Your task to perform on an android device: set the timer Image 0: 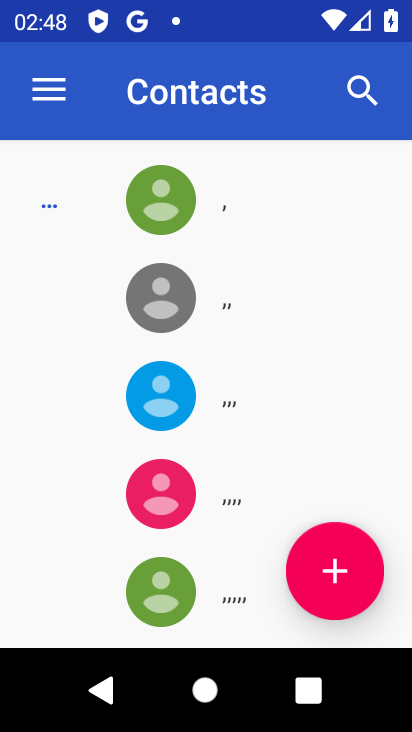
Step 0: press back button
Your task to perform on an android device: set the timer Image 1: 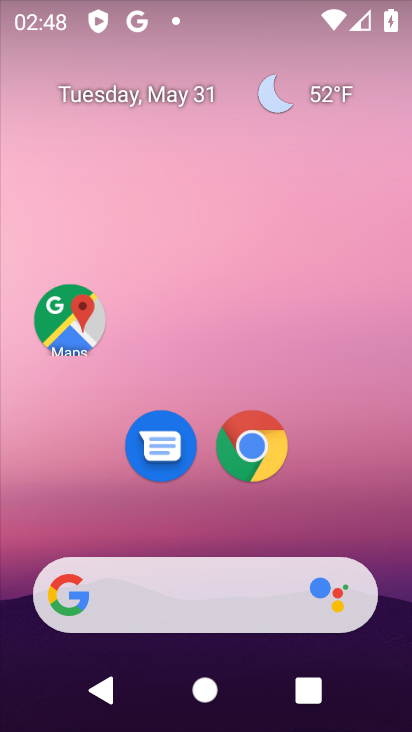
Step 1: drag from (317, 513) to (239, 17)
Your task to perform on an android device: set the timer Image 2: 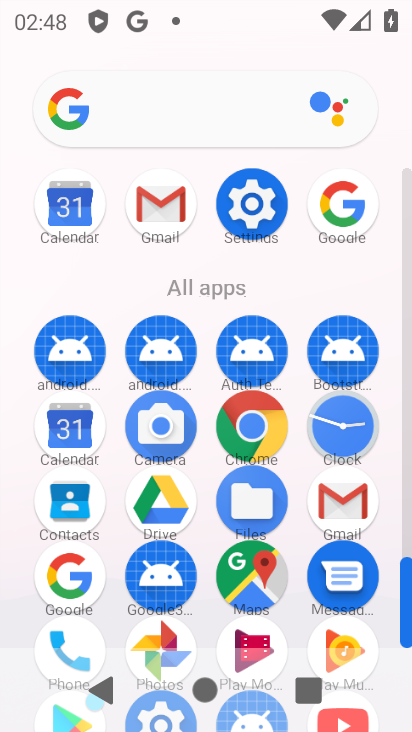
Step 2: click (343, 428)
Your task to perform on an android device: set the timer Image 3: 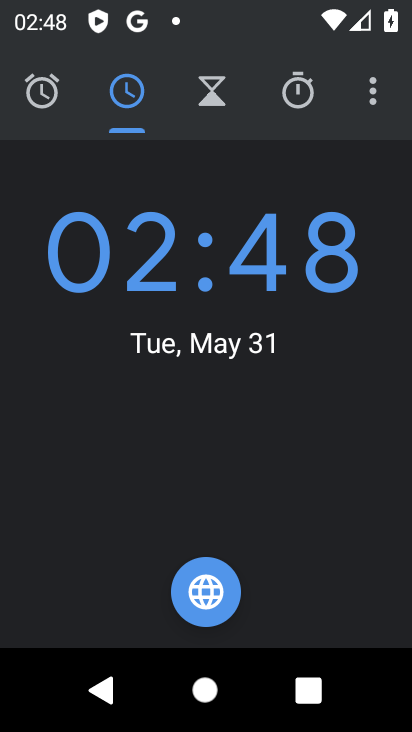
Step 3: click (212, 96)
Your task to perform on an android device: set the timer Image 4: 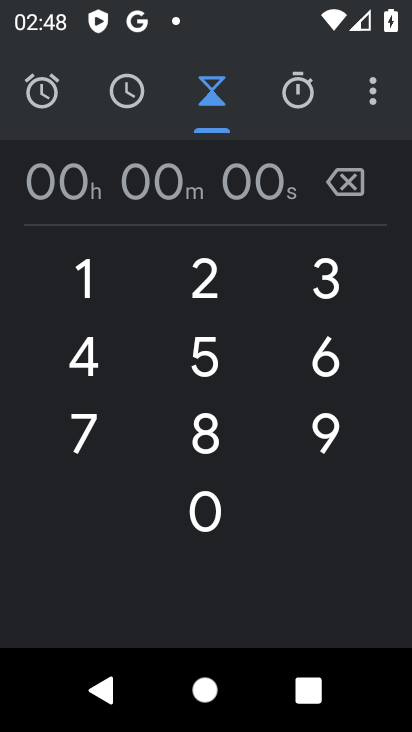
Step 4: type "1357"
Your task to perform on an android device: set the timer Image 5: 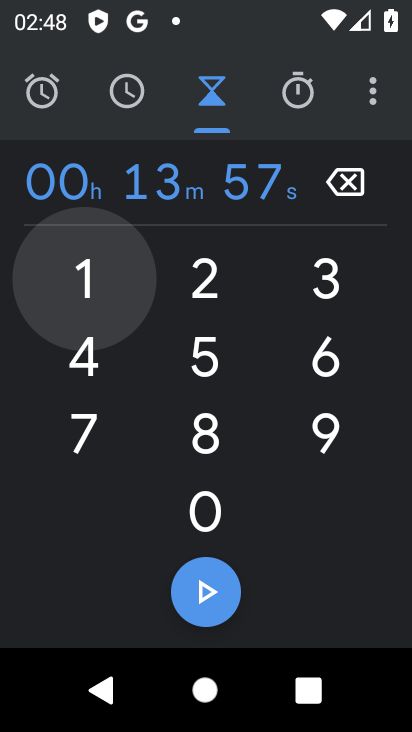
Step 5: click (203, 588)
Your task to perform on an android device: set the timer Image 6: 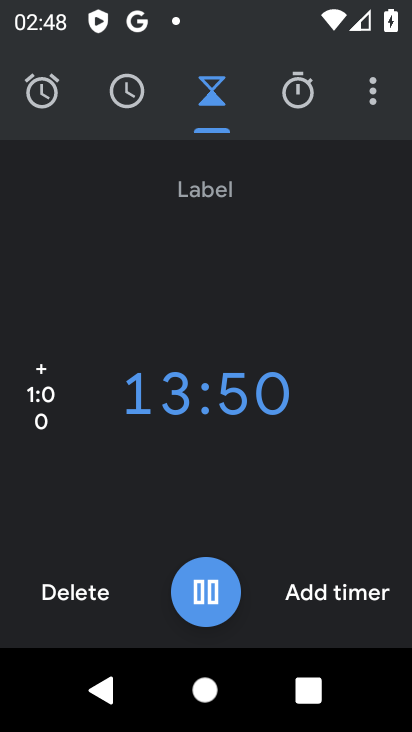
Step 6: click (203, 588)
Your task to perform on an android device: set the timer Image 7: 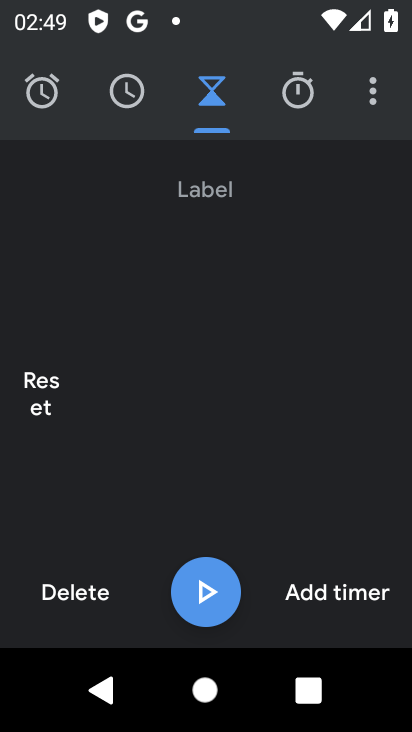
Step 7: task complete